Your task to perform on an android device: turn off wifi Image 0: 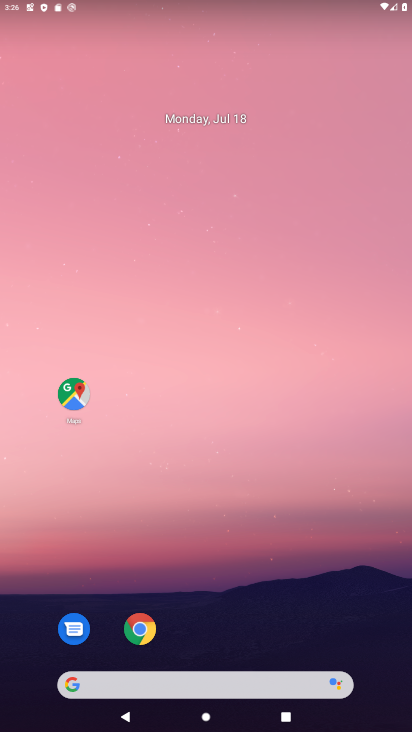
Step 0: drag from (236, 632) to (213, 196)
Your task to perform on an android device: turn off wifi Image 1: 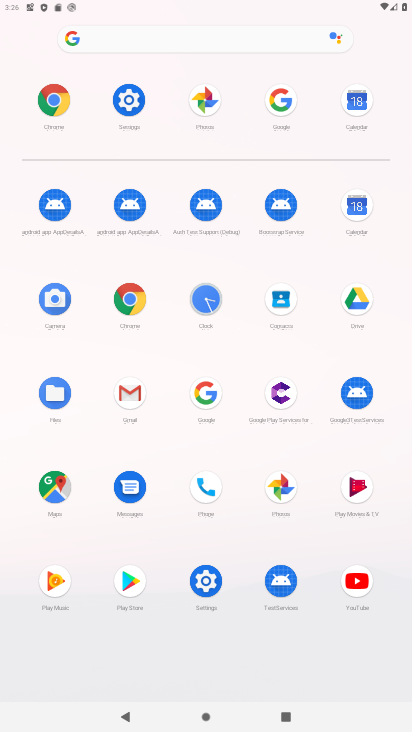
Step 1: click (135, 97)
Your task to perform on an android device: turn off wifi Image 2: 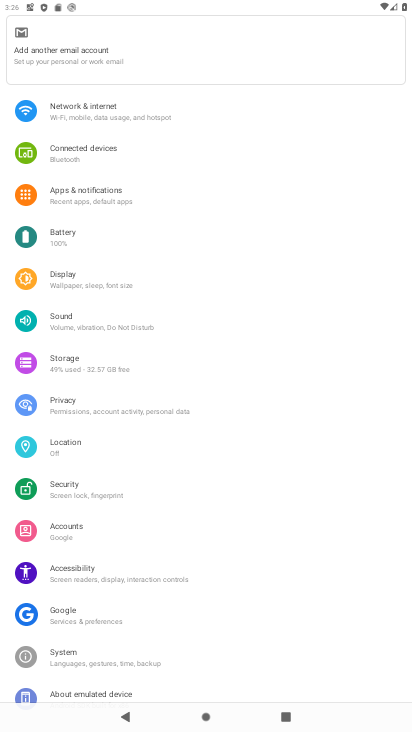
Step 2: click (127, 118)
Your task to perform on an android device: turn off wifi Image 3: 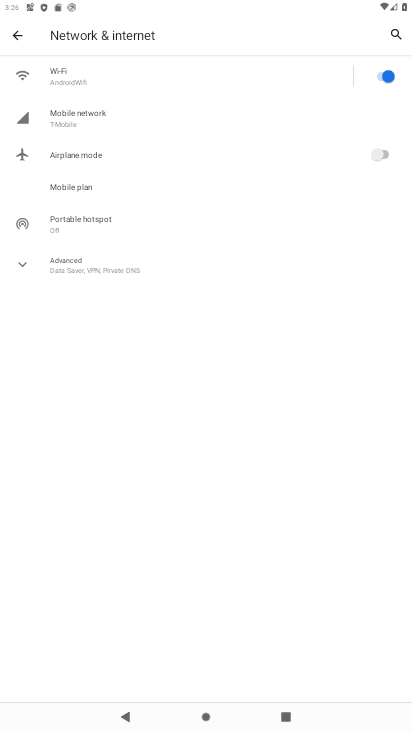
Step 3: click (383, 78)
Your task to perform on an android device: turn off wifi Image 4: 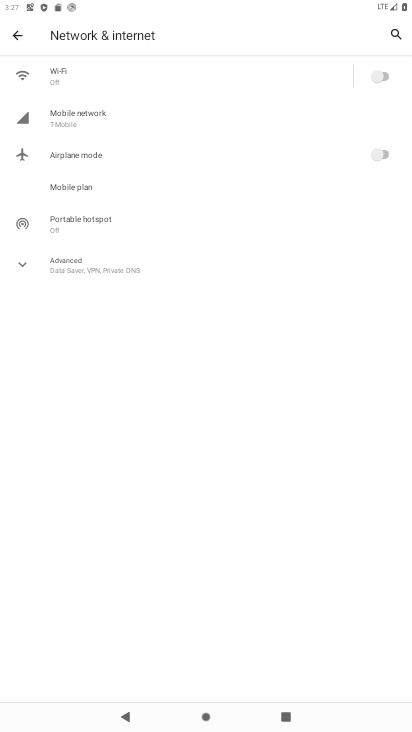
Step 4: task complete